Your task to perform on an android device: turn on priority inbox in the gmail app Image 0: 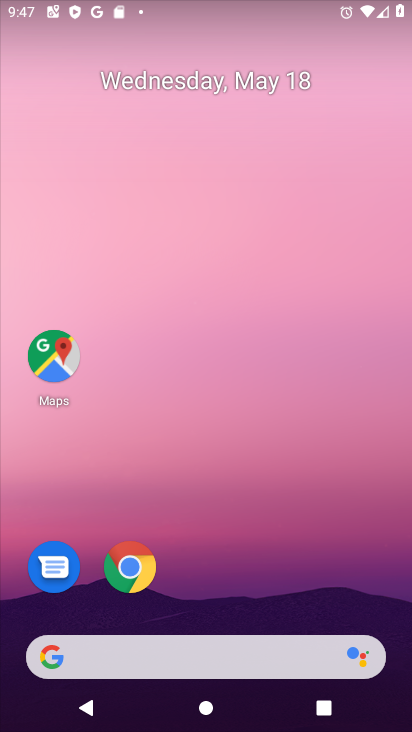
Step 0: drag from (207, 634) to (224, 67)
Your task to perform on an android device: turn on priority inbox in the gmail app Image 1: 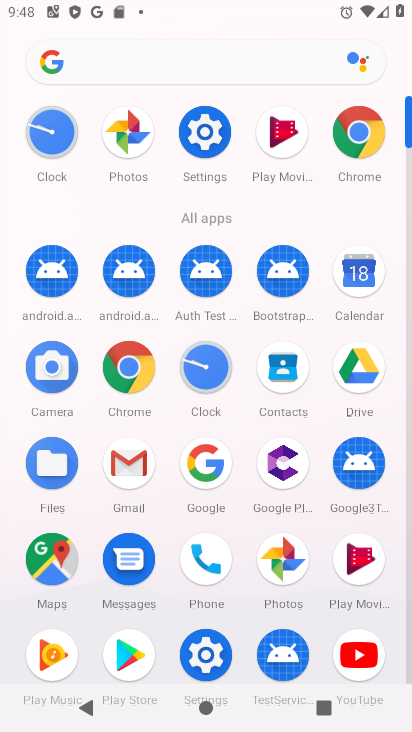
Step 1: click (129, 467)
Your task to perform on an android device: turn on priority inbox in the gmail app Image 2: 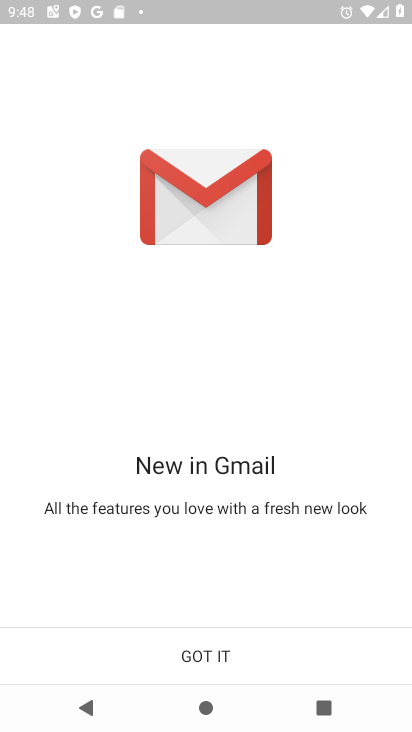
Step 2: click (203, 651)
Your task to perform on an android device: turn on priority inbox in the gmail app Image 3: 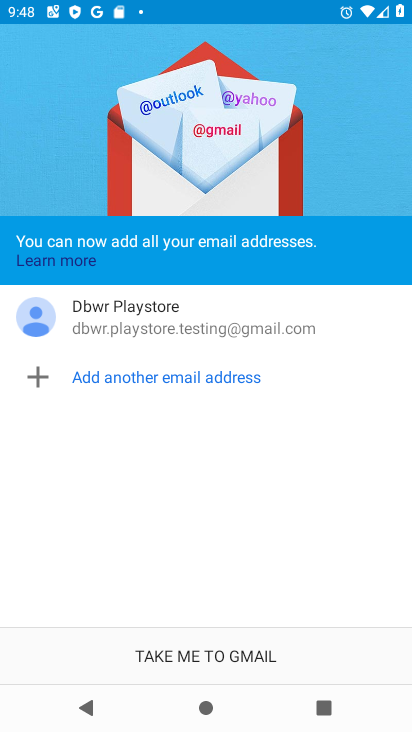
Step 3: click (183, 673)
Your task to perform on an android device: turn on priority inbox in the gmail app Image 4: 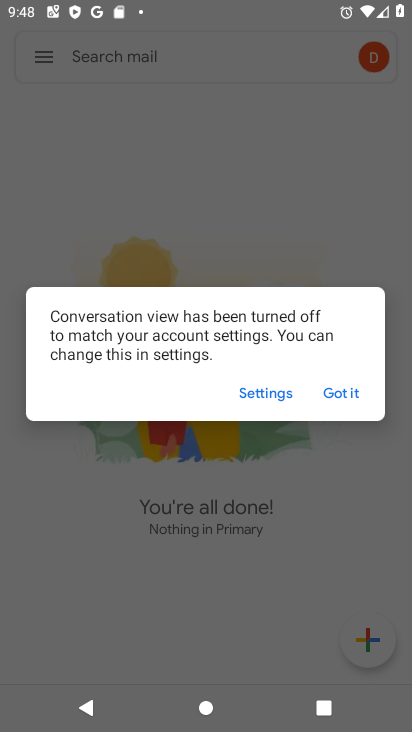
Step 4: click (344, 397)
Your task to perform on an android device: turn on priority inbox in the gmail app Image 5: 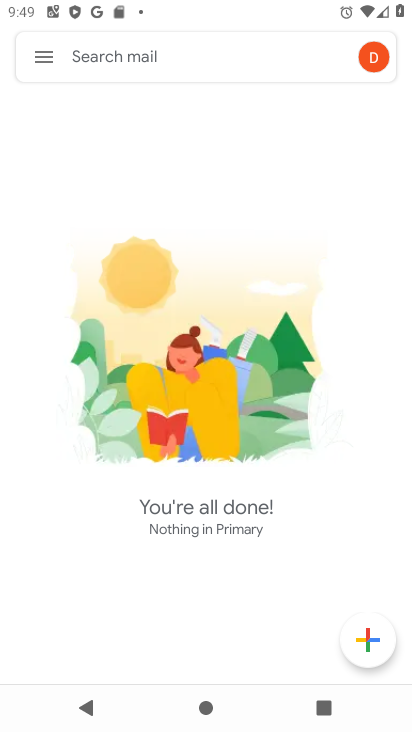
Step 5: click (41, 67)
Your task to perform on an android device: turn on priority inbox in the gmail app Image 6: 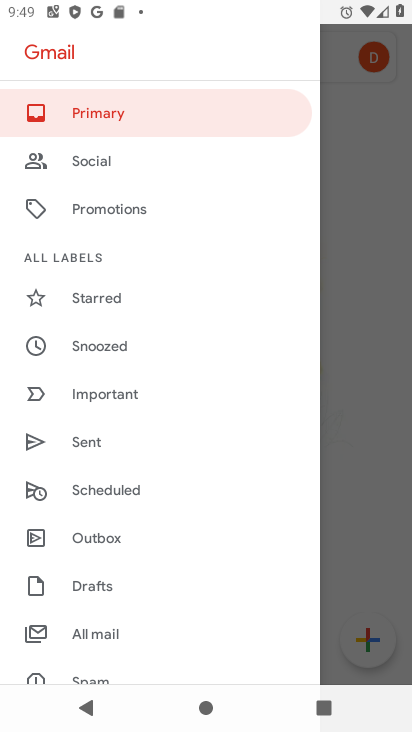
Step 6: drag from (115, 633) to (143, 46)
Your task to perform on an android device: turn on priority inbox in the gmail app Image 7: 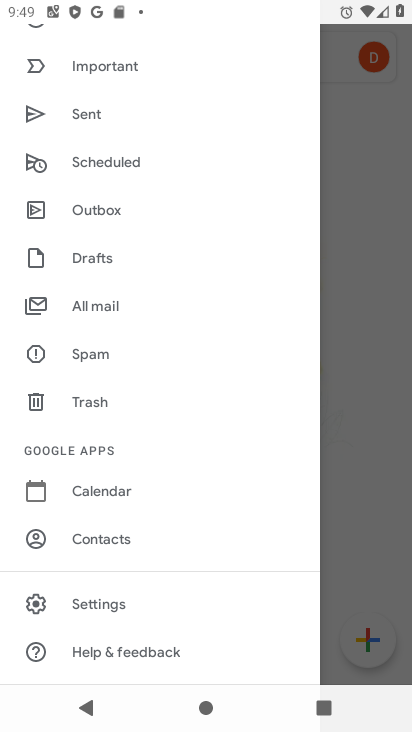
Step 7: click (88, 601)
Your task to perform on an android device: turn on priority inbox in the gmail app Image 8: 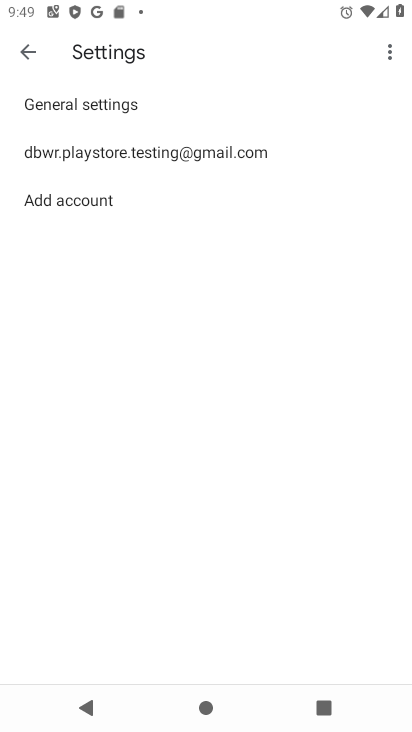
Step 8: drag from (88, 601) to (99, 561)
Your task to perform on an android device: turn on priority inbox in the gmail app Image 9: 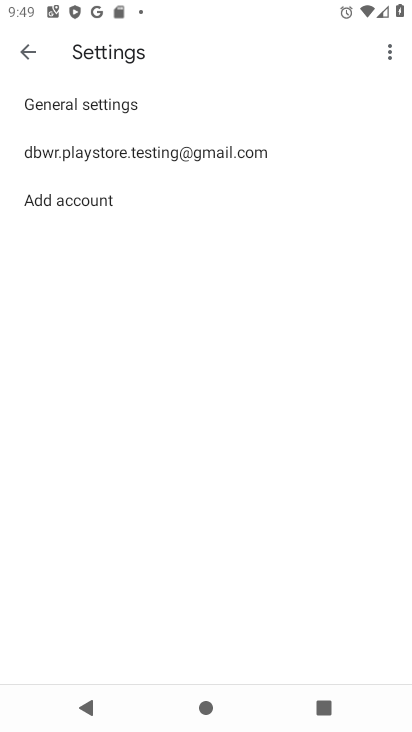
Step 9: click (78, 150)
Your task to perform on an android device: turn on priority inbox in the gmail app Image 10: 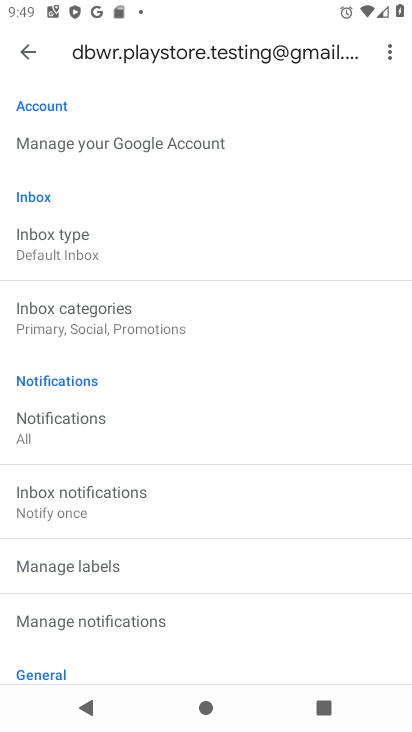
Step 10: click (45, 239)
Your task to perform on an android device: turn on priority inbox in the gmail app Image 11: 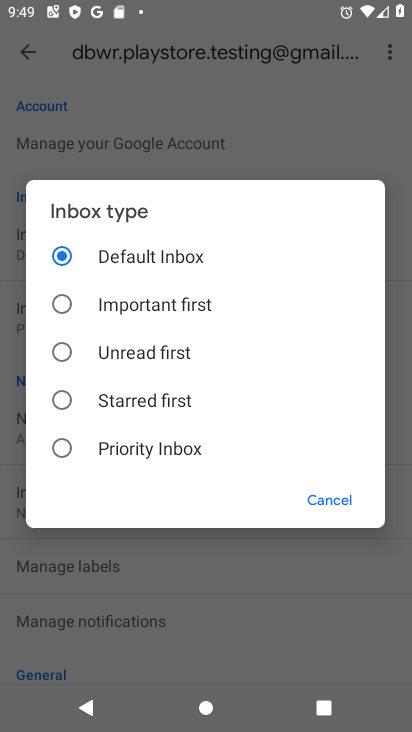
Step 11: click (118, 446)
Your task to perform on an android device: turn on priority inbox in the gmail app Image 12: 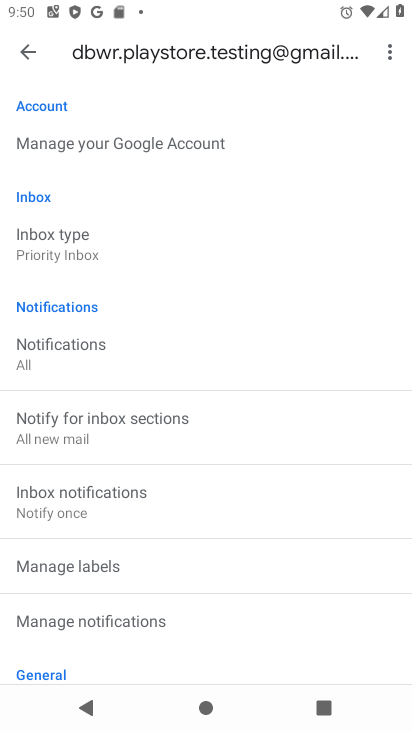
Step 12: task complete